Your task to perform on an android device: turn off notifications settings in the gmail app Image 0: 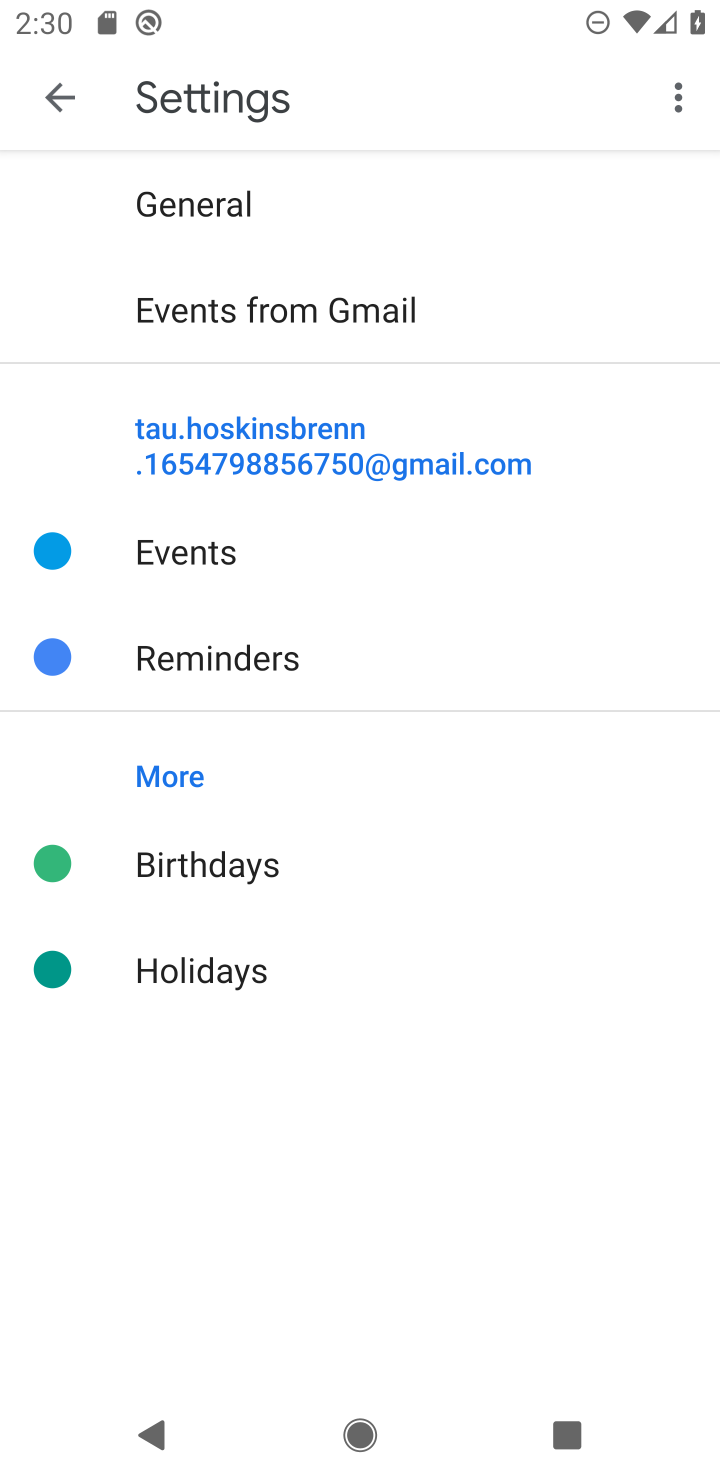
Step 0: press home button
Your task to perform on an android device: turn off notifications settings in the gmail app Image 1: 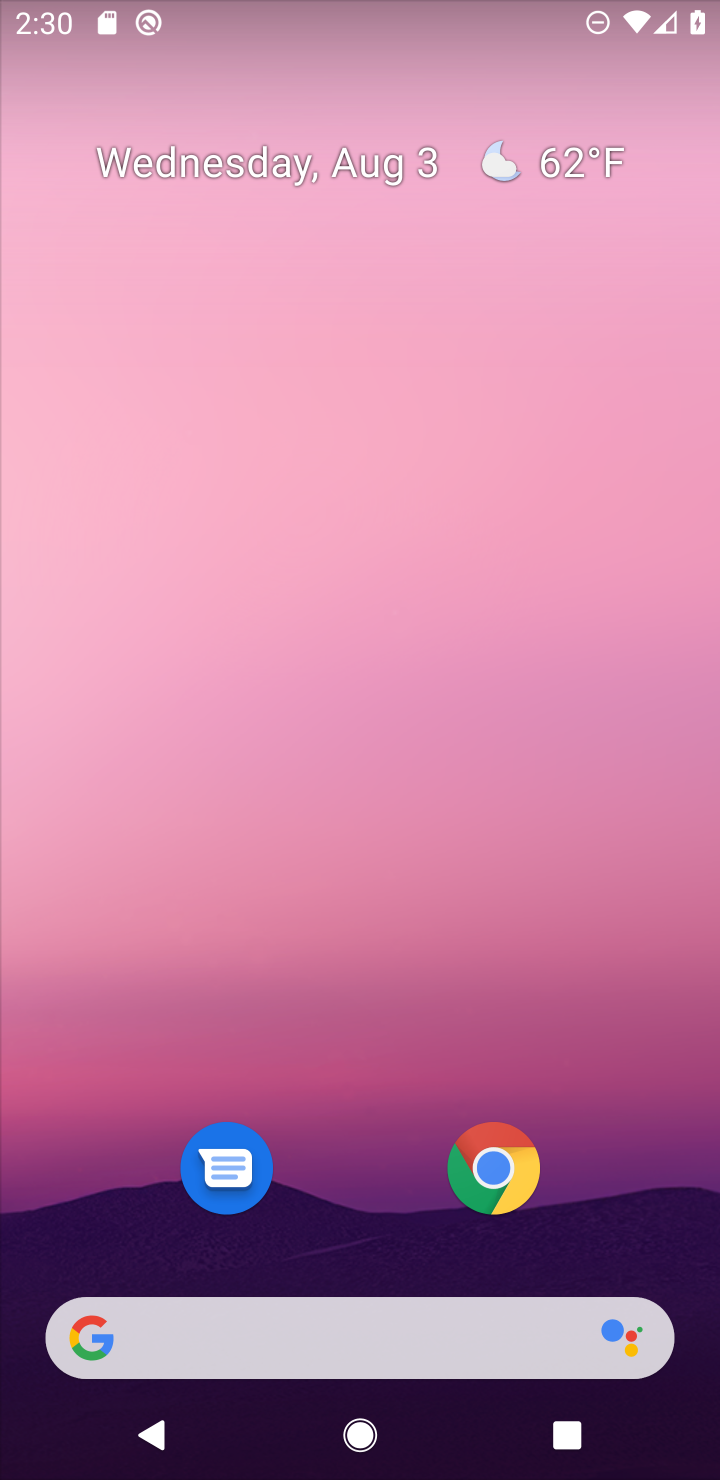
Step 1: drag from (669, 1246) to (584, 380)
Your task to perform on an android device: turn off notifications settings in the gmail app Image 2: 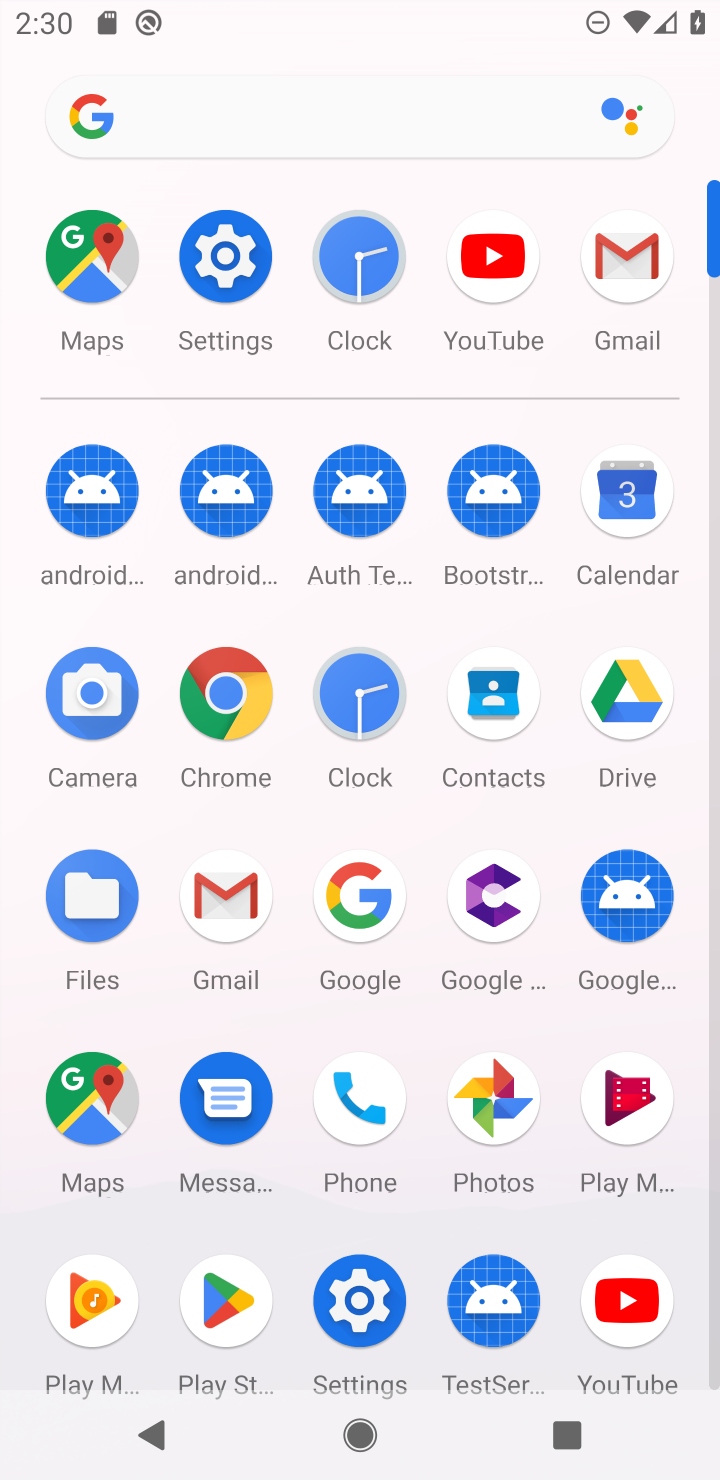
Step 2: click (226, 905)
Your task to perform on an android device: turn off notifications settings in the gmail app Image 3: 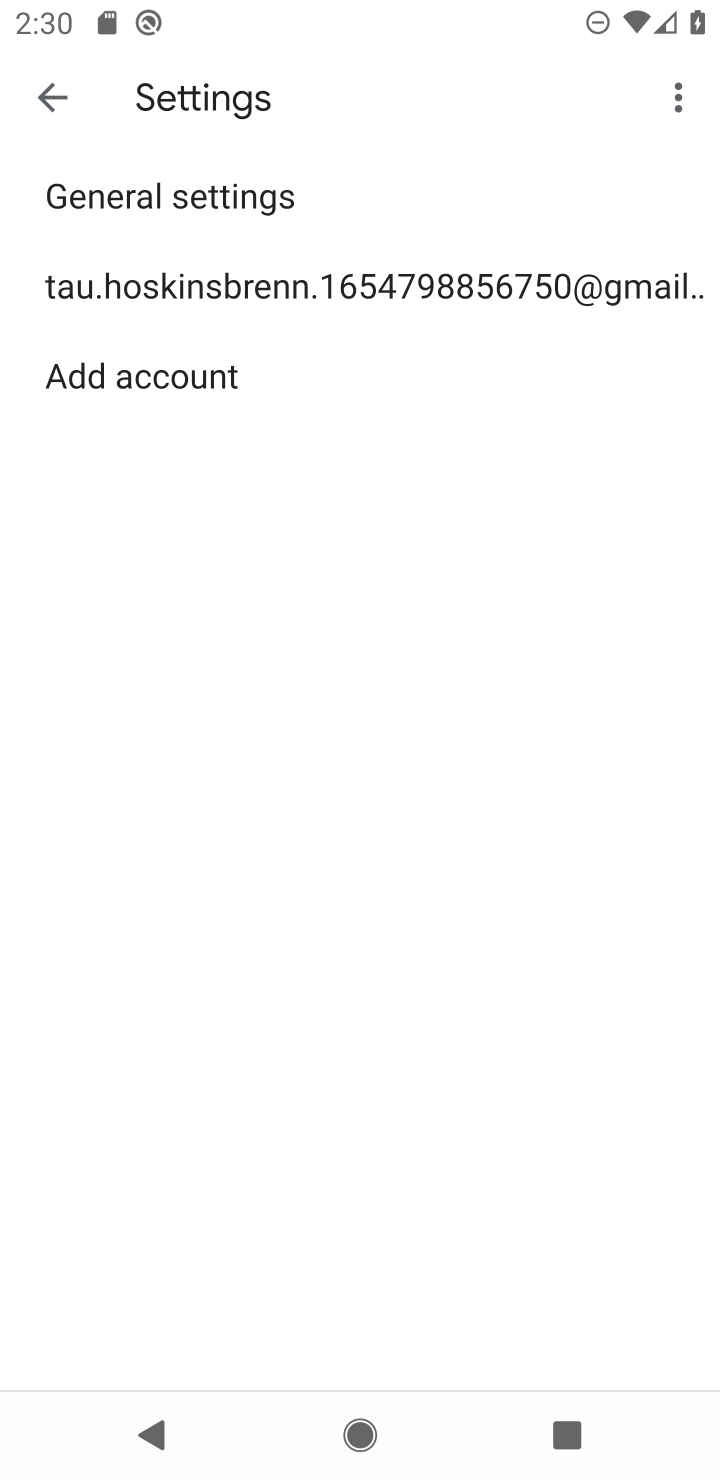
Step 3: click (239, 289)
Your task to perform on an android device: turn off notifications settings in the gmail app Image 4: 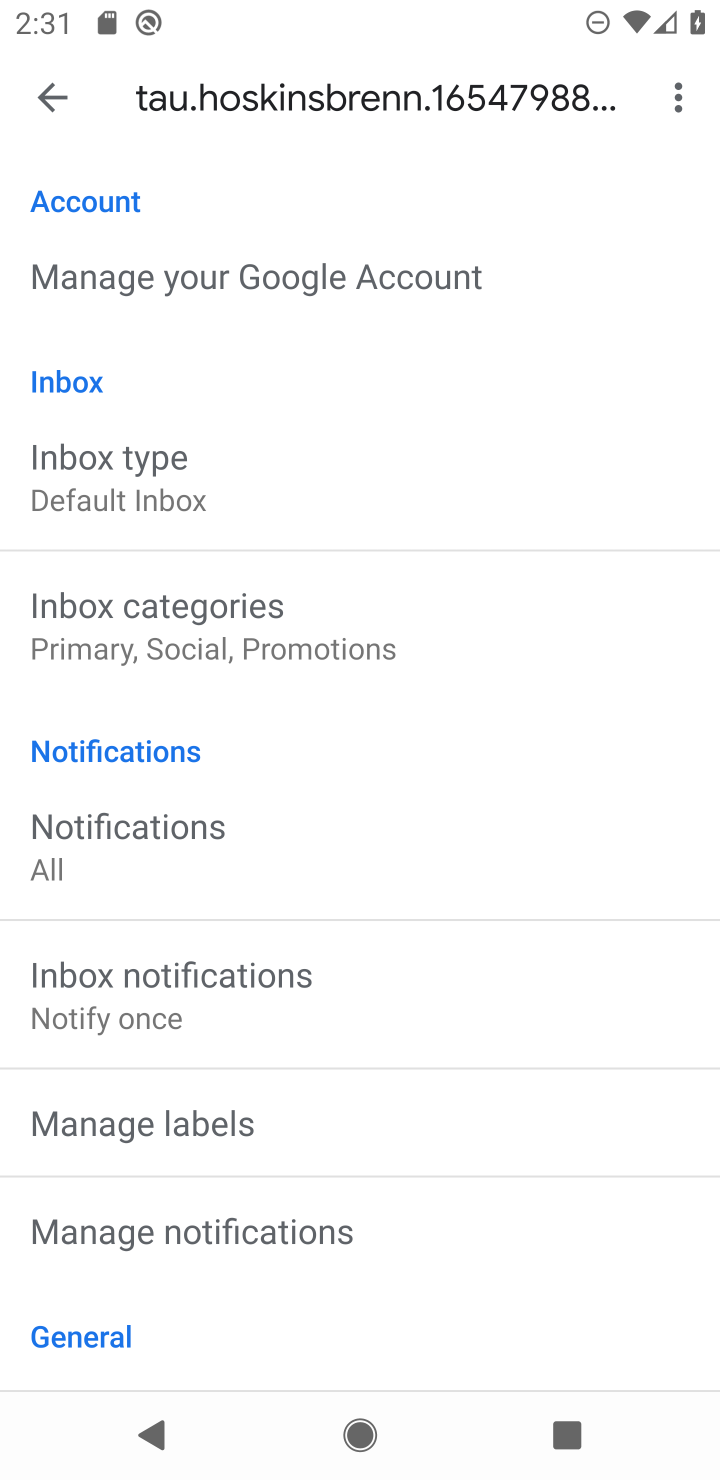
Step 4: click (217, 1207)
Your task to perform on an android device: turn off notifications settings in the gmail app Image 5: 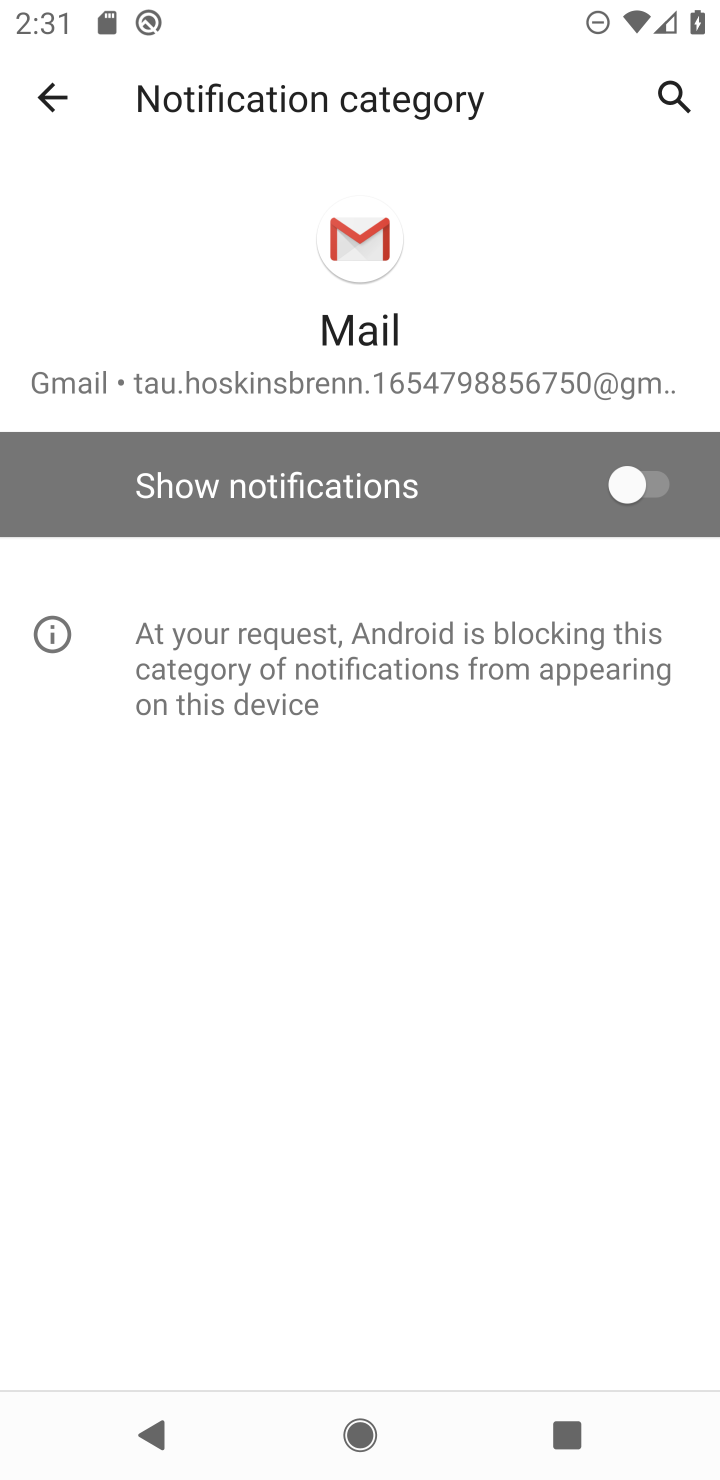
Step 5: task complete